Your task to perform on an android device: Go to internet settings Image 0: 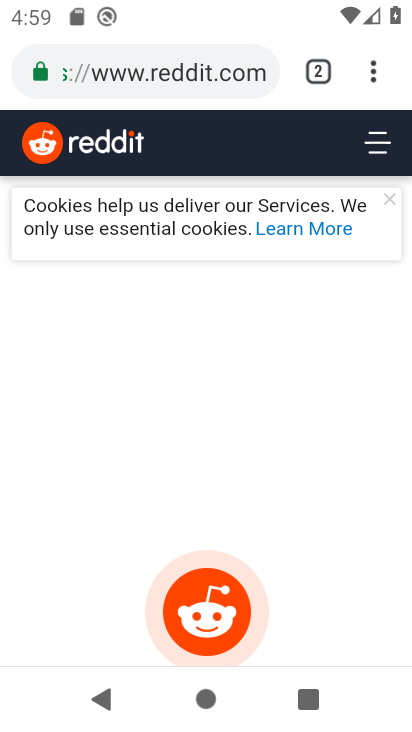
Step 0: press home button
Your task to perform on an android device: Go to internet settings Image 1: 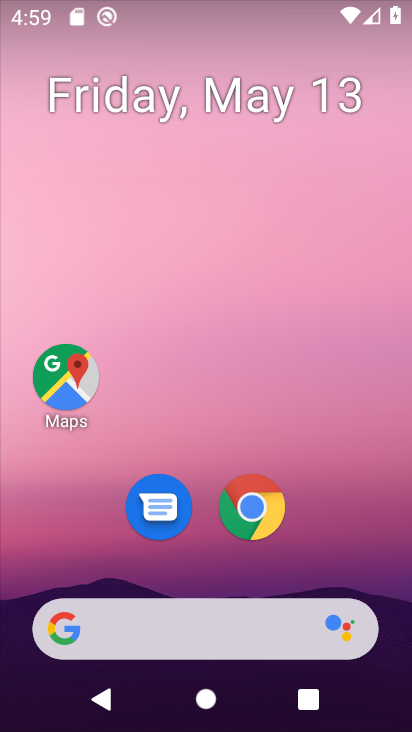
Step 1: drag from (341, 536) to (243, 43)
Your task to perform on an android device: Go to internet settings Image 2: 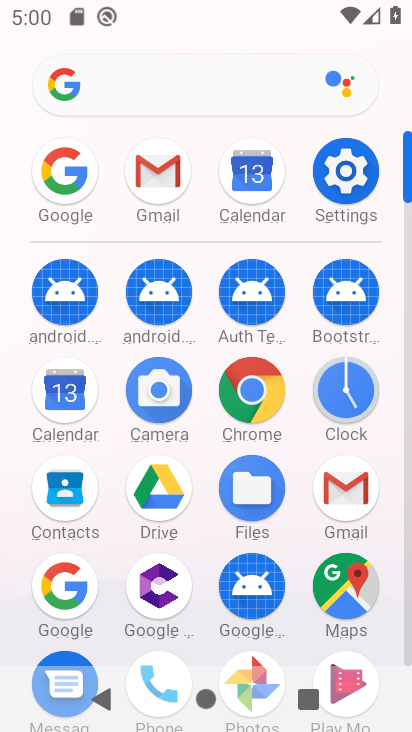
Step 2: click (339, 179)
Your task to perform on an android device: Go to internet settings Image 3: 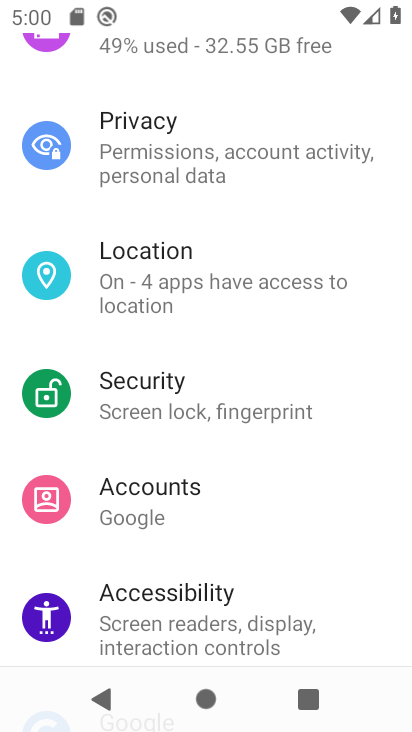
Step 3: drag from (215, 209) to (226, 605)
Your task to perform on an android device: Go to internet settings Image 4: 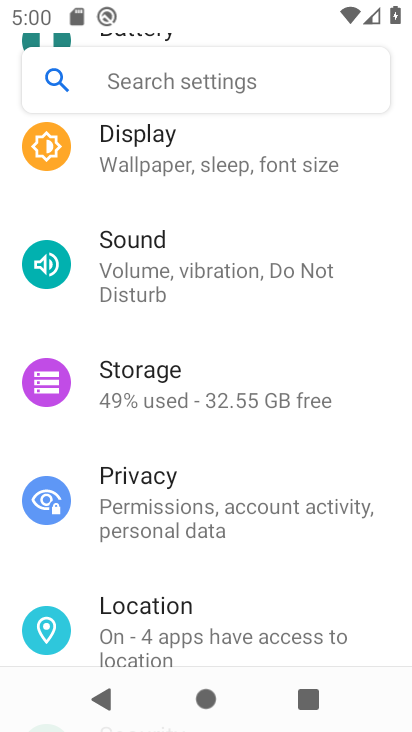
Step 4: drag from (217, 207) to (208, 569)
Your task to perform on an android device: Go to internet settings Image 5: 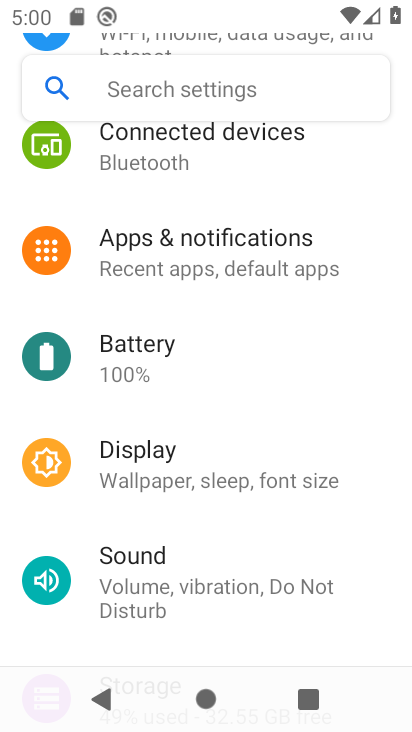
Step 5: drag from (221, 215) to (215, 539)
Your task to perform on an android device: Go to internet settings Image 6: 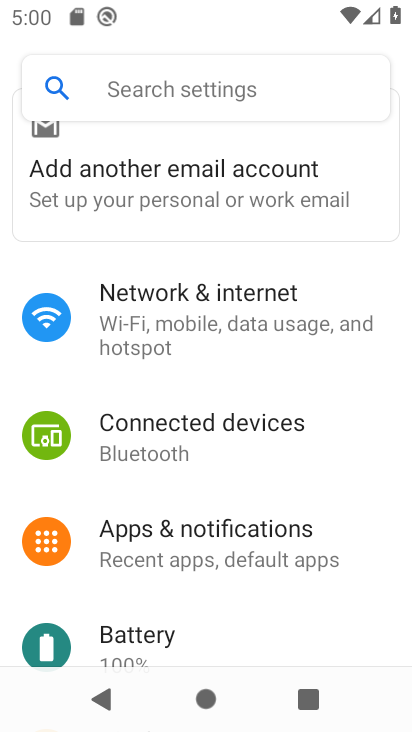
Step 6: click (229, 325)
Your task to perform on an android device: Go to internet settings Image 7: 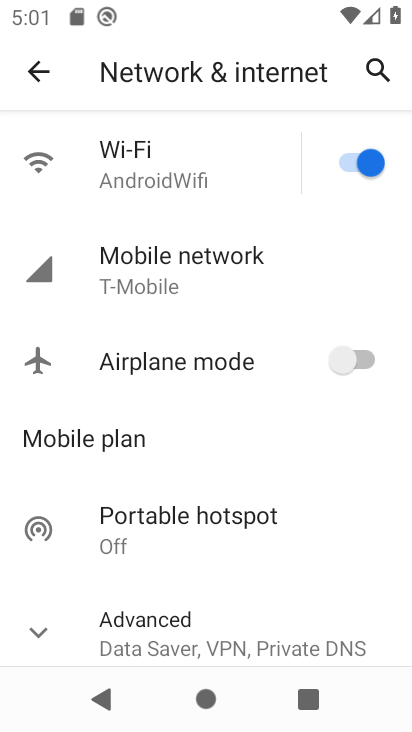
Step 7: task complete